Your task to perform on an android device: Go to settings Image 0: 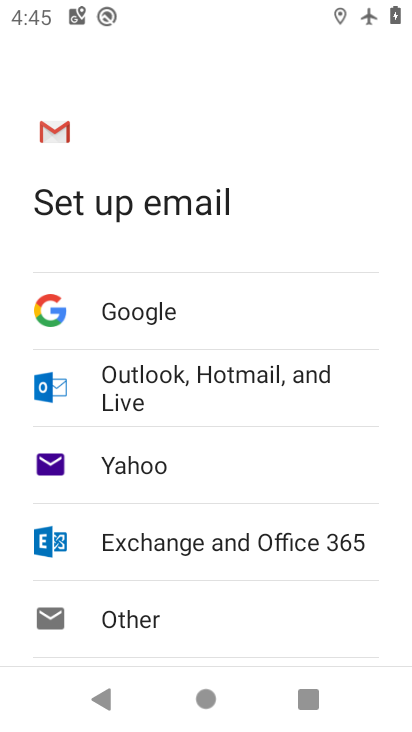
Step 0: press home button
Your task to perform on an android device: Go to settings Image 1: 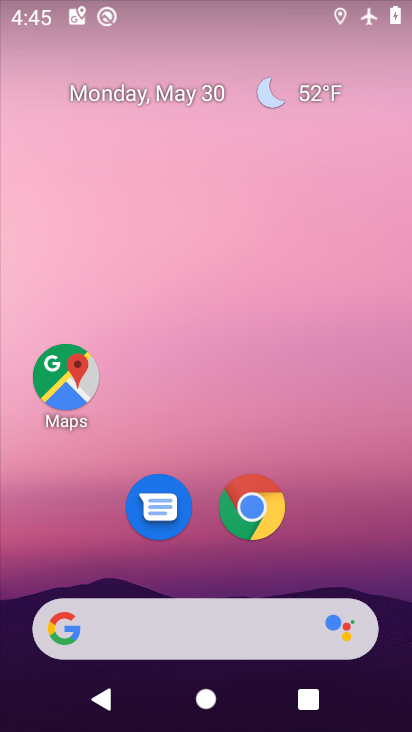
Step 1: drag from (360, 522) to (307, 0)
Your task to perform on an android device: Go to settings Image 2: 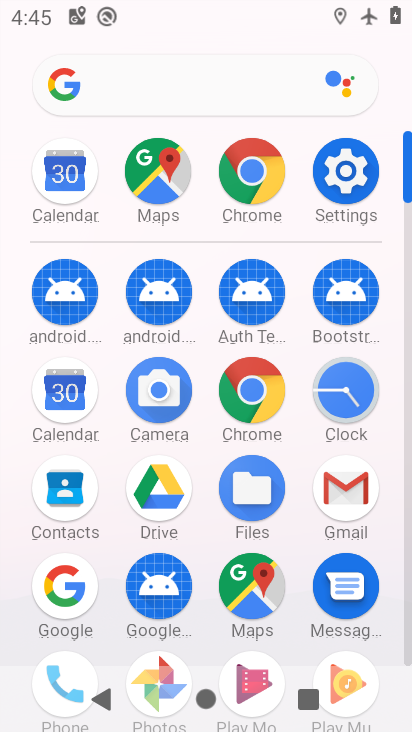
Step 2: click (373, 177)
Your task to perform on an android device: Go to settings Image 3: 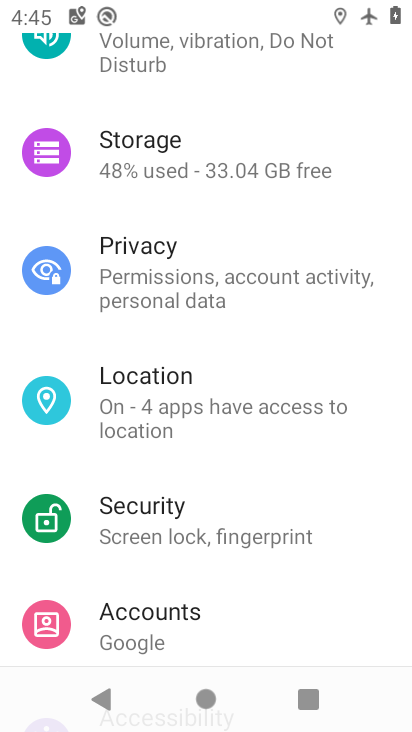
Step 3: task complete